Your task to perform on an android device: move an email to a new category in the gmail app Image 0: 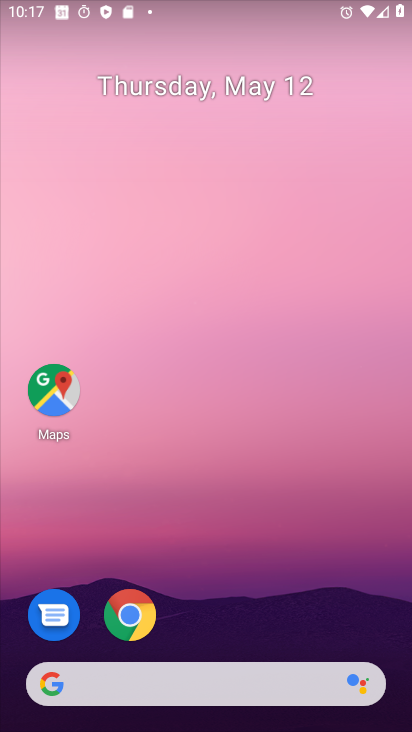
Step 0: drag from (243, 569) to (297, 47)
Your task to perform on an android device: move an email to a new category in the gmail app Image 1: 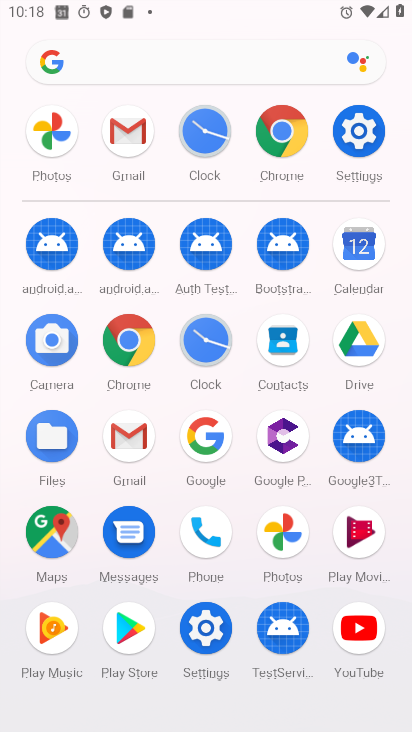
Step 1: click (125, 441)
Your task to perform on an android device: move an email to a new category in the gmail app Image 2: 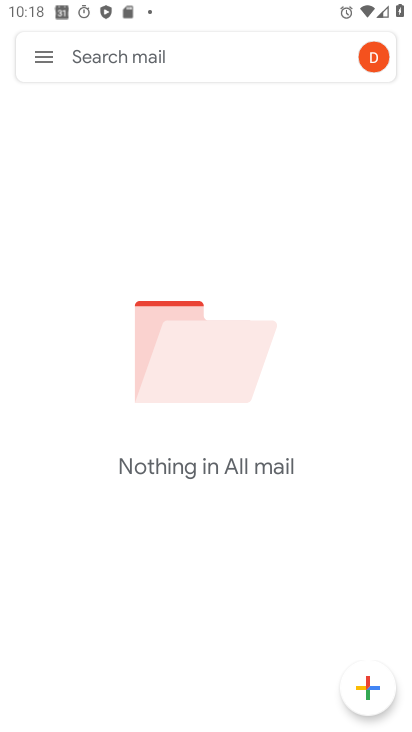
Step 2: click (42, 53)
Your task to perform on an android device: move an email to a new category in the gmail app Image 3: 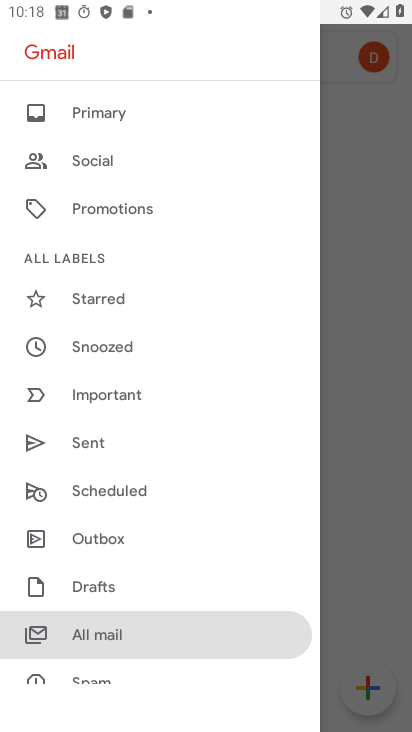
Step 3: drag from (129, 612) to (199, 196)
Your task to perform on an android device: move an email to a new category in the gmail app Image 4: 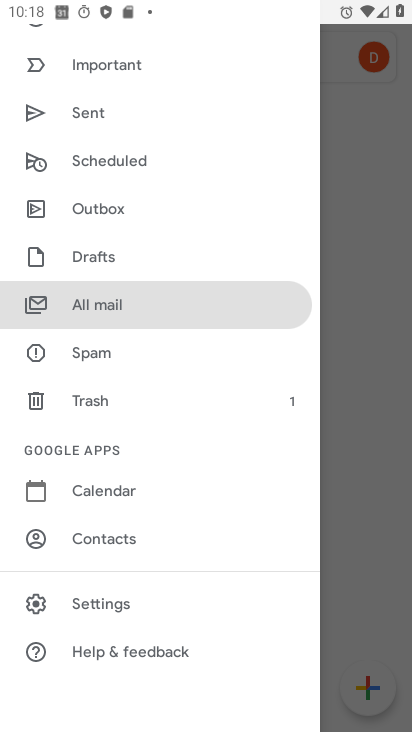
Step 4: click (156, 314)
Your task to perform on an android device: move an email to a new category in the gmail app Image 5: 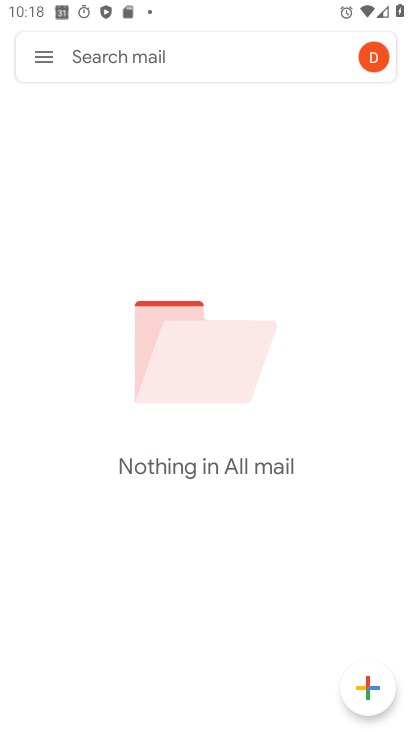
Step 5: task complete